Your task to perform on an android device: Go to Yahoo.com Image 0: 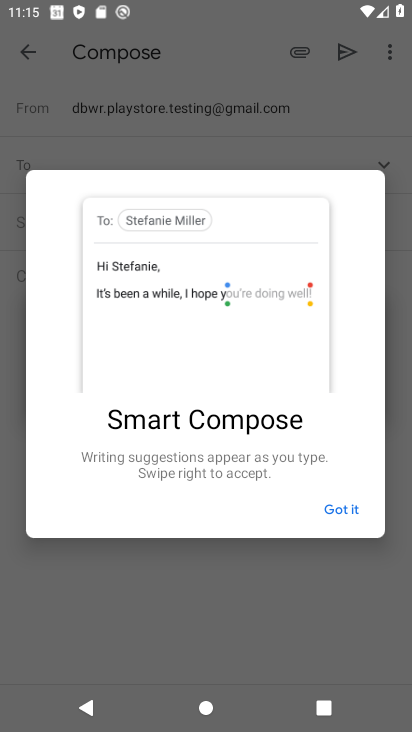
Step 0: press home button
Your task to perform on an android device: Go to Yahoo.com Image 1: 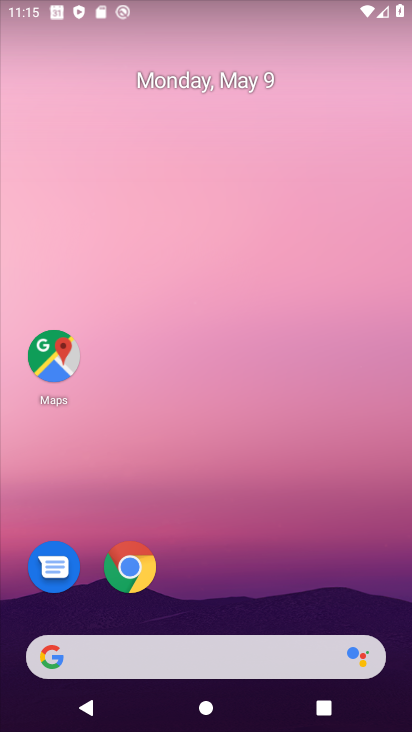
Step 1: drag from (355, 597) to (244, 29)
Your task to perform on an android device: Go to Yahoo.com Image 2: 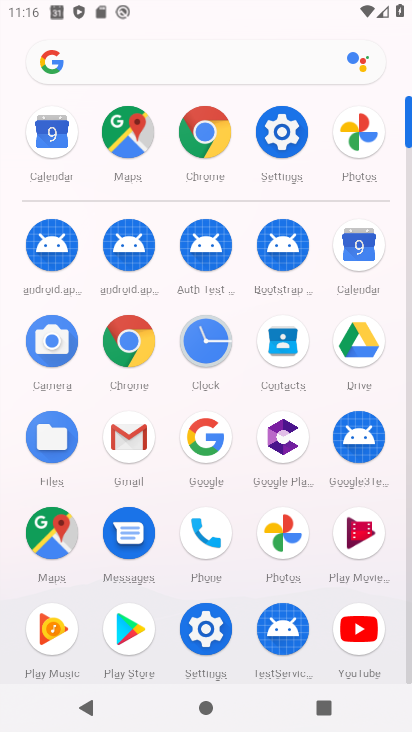
Step 2: click (193, 130)
Your task to perform on an android device: Go to Yahoo.com Image 3: 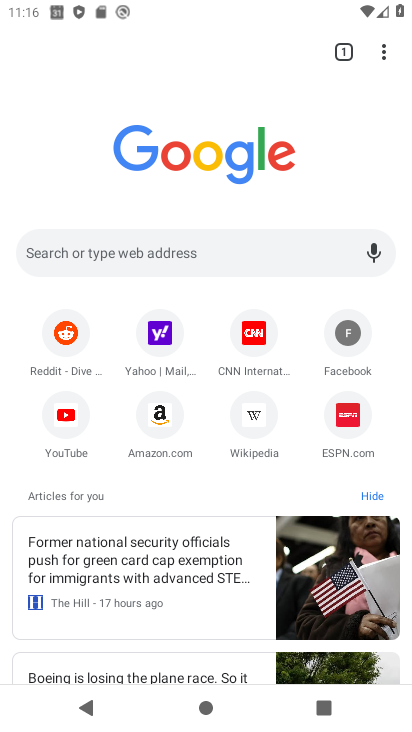
Step 3: click (150, 333)
Your task to perform on an android device: Go to Yahoo.com Image 4: 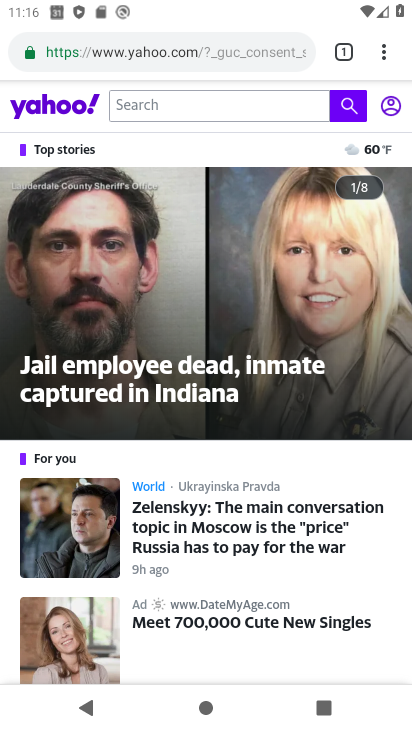
Step 4: task complete